Your task to perform on an android device: Go to wifi settings Image 0: 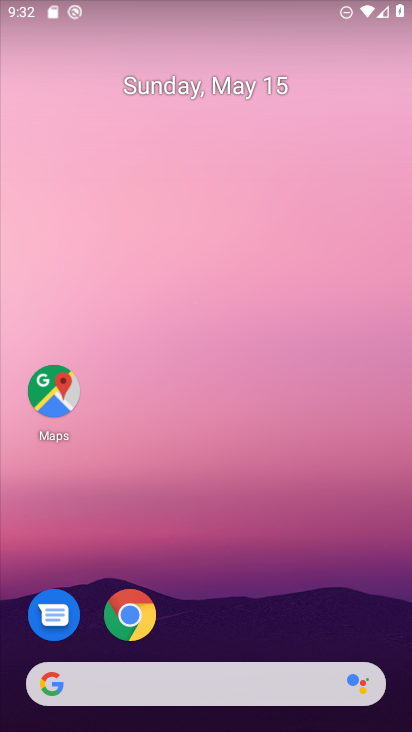
Step 0: drag from (203, 661) to (316, 111)
Your task to perform on an android device: Go to wifi settings Image 1: 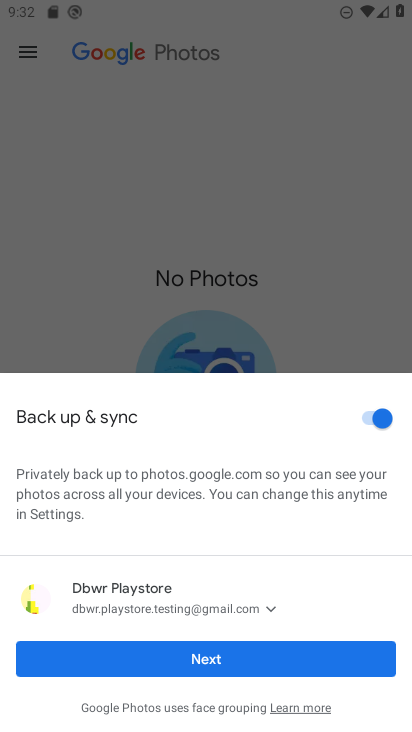
Step 1: press home button
Your task to perform on an android device: Go to wifi settings Image 2: 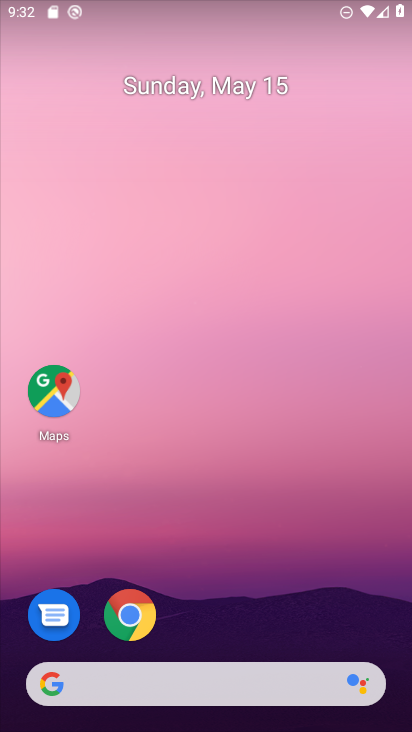
Step 2: drag from (214, 676) to (356, 85)
Your task to perform on an android device: Go to wifi settings Image 3: 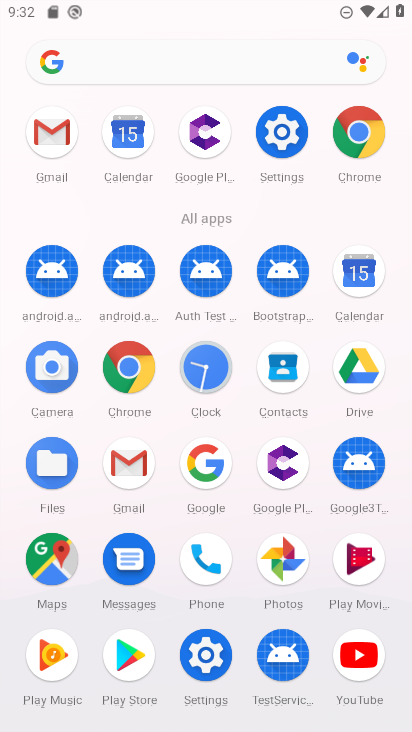
Step 3: click (205, 663)
Your task to perform on an android device: Go to wifi settings Image 4: 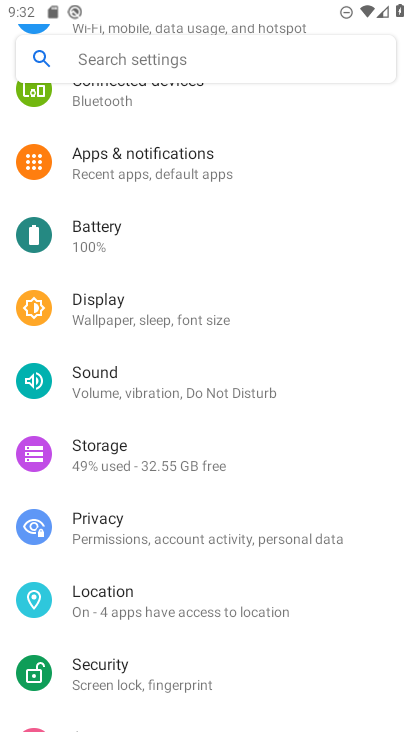
Step 4: drag from (286, 152) to (254, 437)
Your task to perform on an android device: Go to wifi settings Image 5: 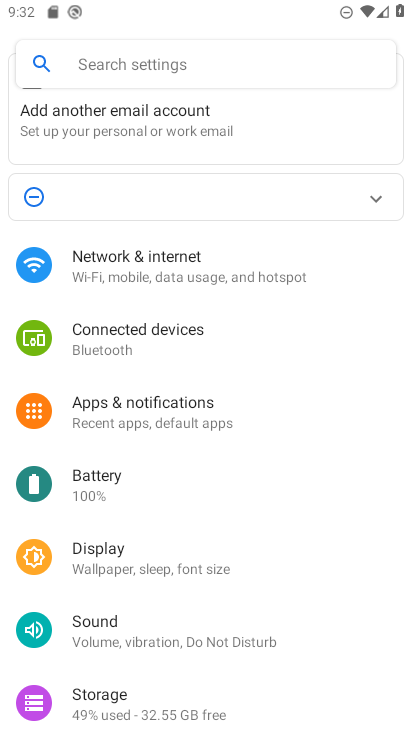
Step 5: click (254, 267)
Your task to perform on an android device: Go to wifi settings Image 6: 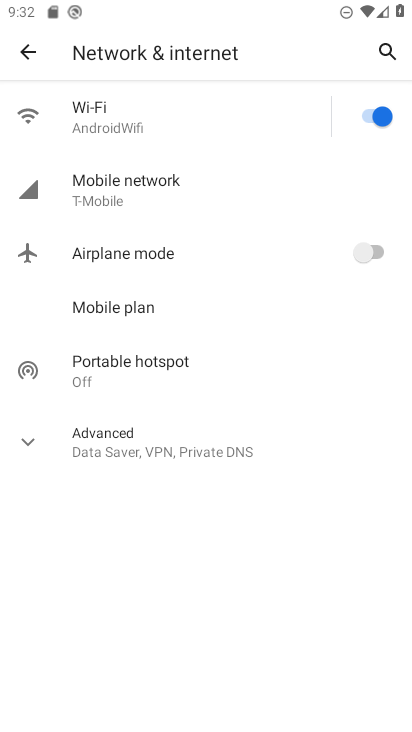
Step 6: click (182, 129)
Your task to perform on an android device: Go to wifi settings Image 7: 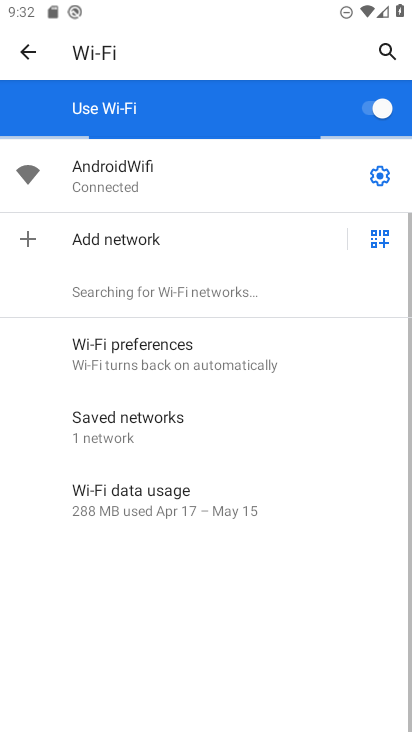
Step 7: task complete